Your task to perform on an android device: remove spam from my inbox in the gmail app Image 0: 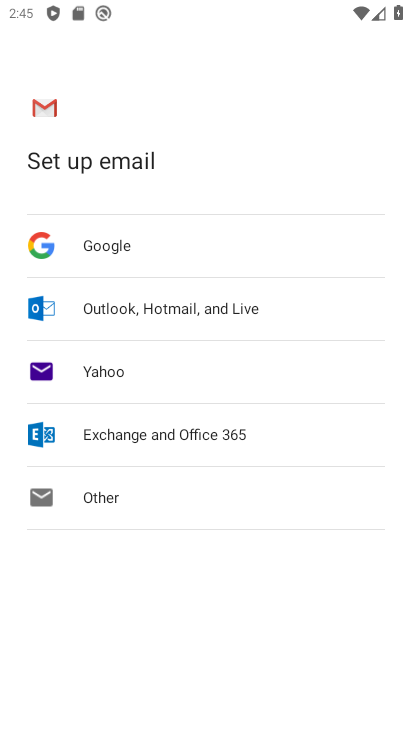
Step 0: press home button
Your task to perform on an android device: remove spam from my inbox in the gmail app Image 1: 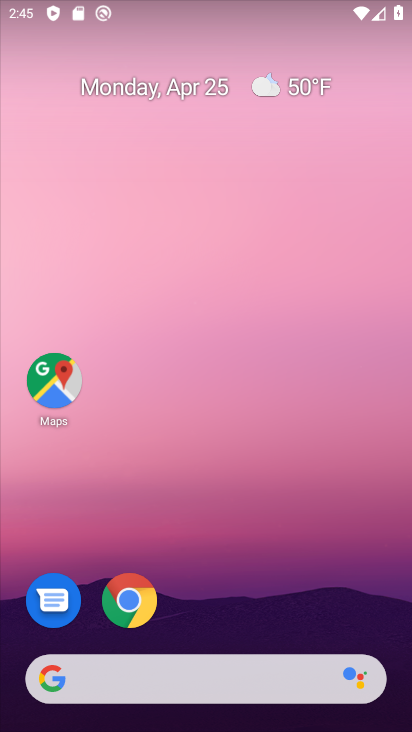
Step 1: drag from (378, 604) to (372, 284)
Your task to perform on an android device: remove spam from my inbox in the gmail app Image 2: 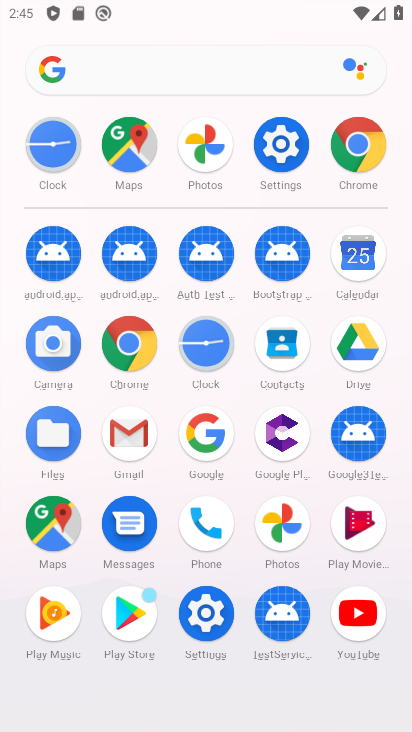
Step 2: click (137, 445)
Your task to perform on an android device: remove spam from my inbox in the gmail app Image 3: 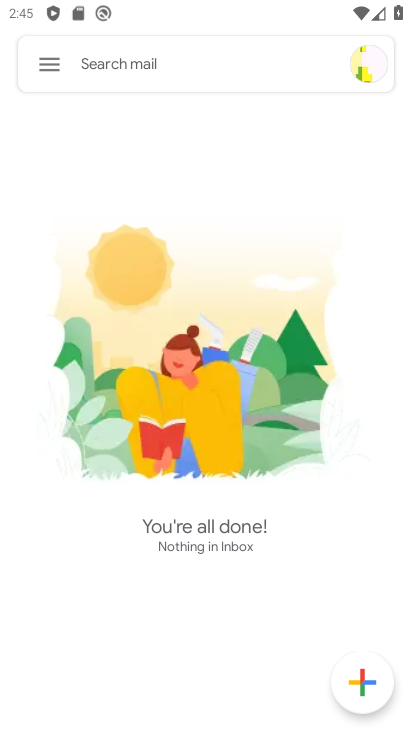
Step 3: click (42, 62)
Your task to perform on an android device: remove spam from my inbox in the gmail app Image 4: 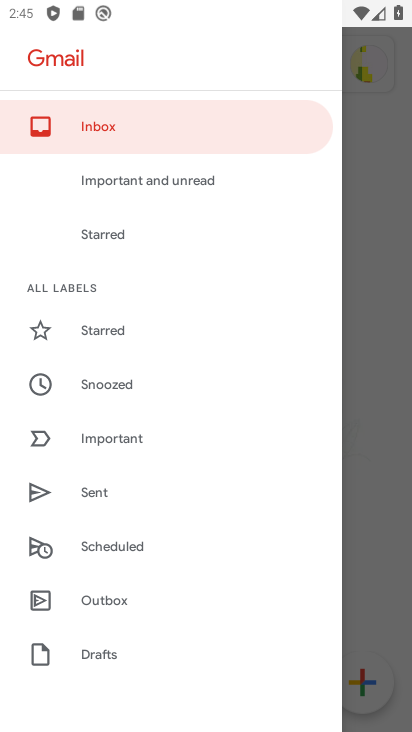
Step 4: drag from (149, 627) to (147, 337)
Your task to perform on an android device: remove spam from my inbox in the gmail app Image 5: 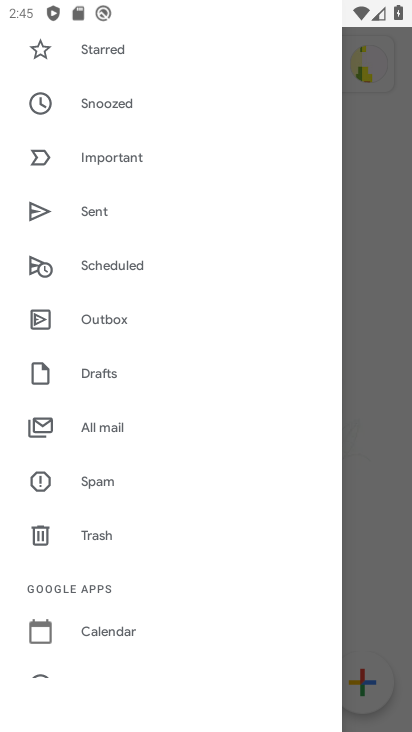
Step 5: click (130, 482)
Your task to perform on an android device: remove spam from my inbox in the gmail app Image 6: 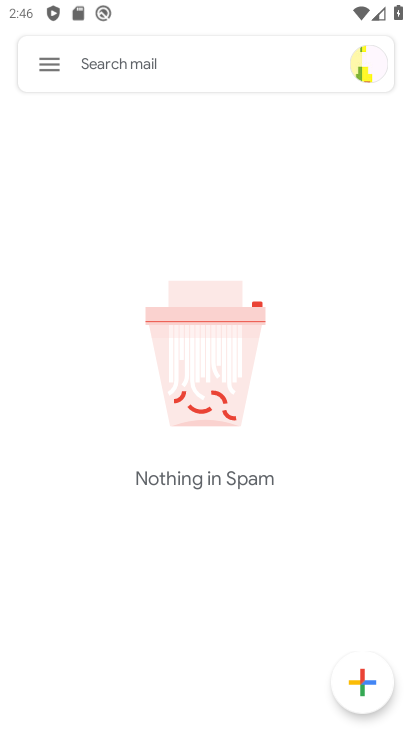
Step 6: click (42, 64)
Your task to perform on an android device: remove spam from my inbox in the gmail app Image 7: 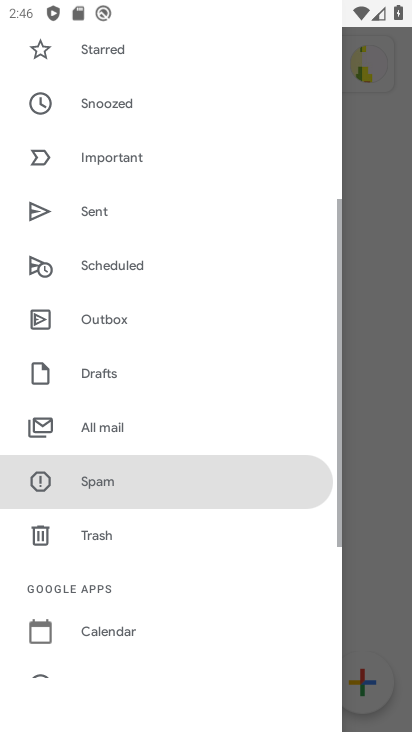
Step 7: drag from (185, 202) to (204, 539)
Your task to perform on an android device: remove spam from my inbox in the gmail app Image 8: 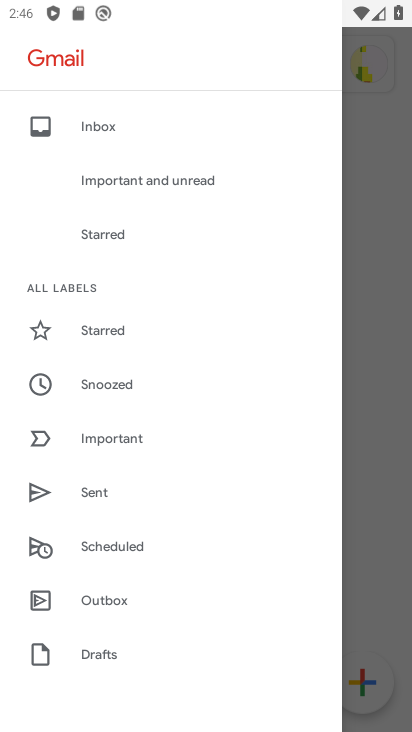
Step 8: drag from (167, 644) to (174, 291)
Your task to perform on an android device: remove spam from my inbox in the gmail app Image 9: 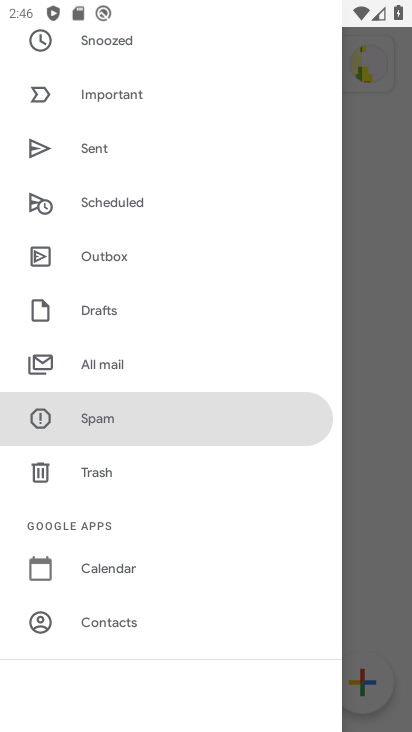
Step 9: click (146, 431)
Your task to perform on an android device: remove spam from my inbox in the gmail app Image 10: 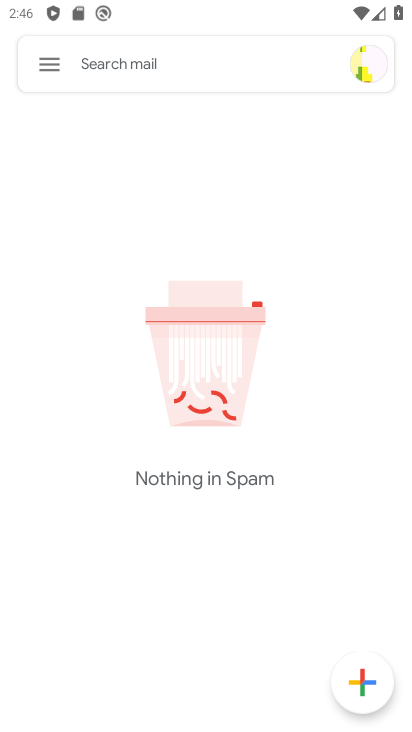
Step 10: task complete